Your task to perform on an android device: toggle sleep mode Image 0: 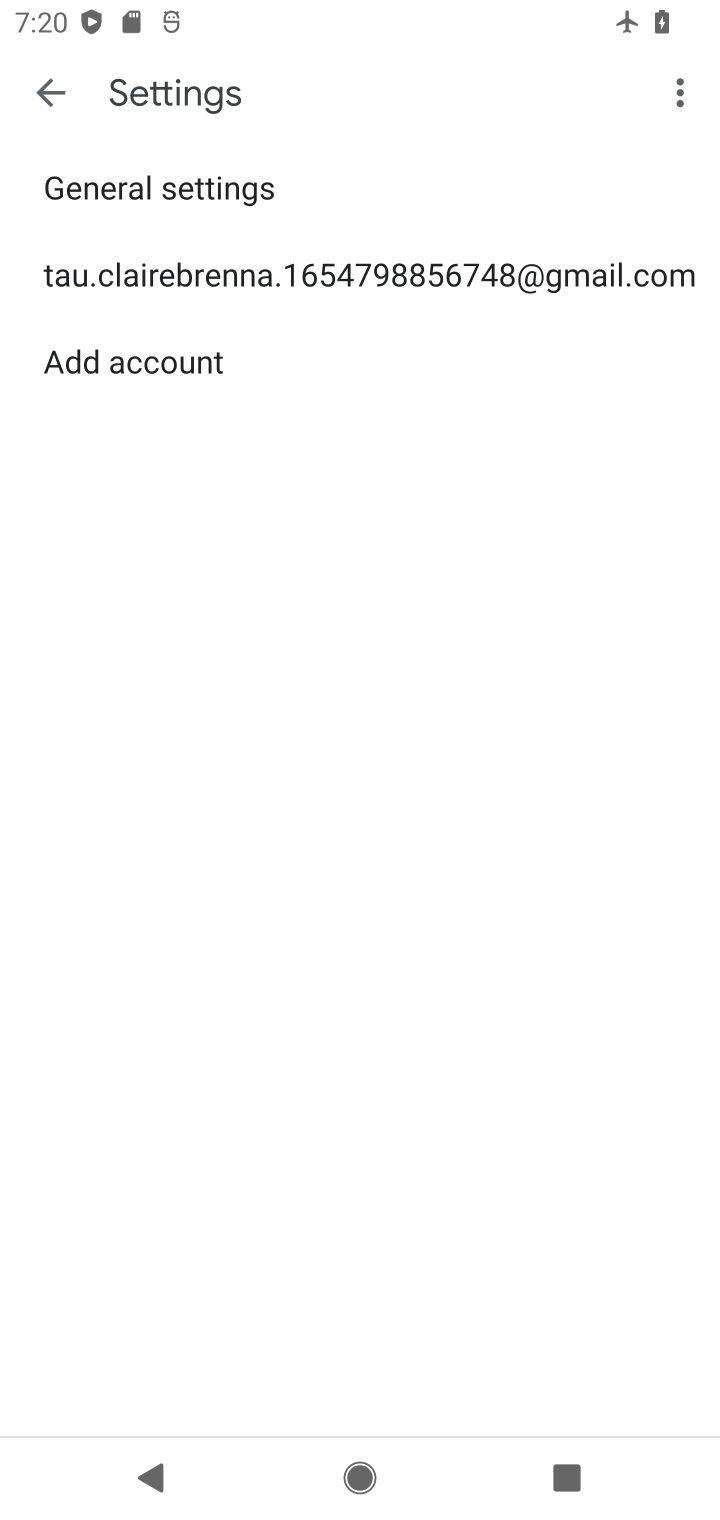
Step 0: press back button
Your task to perform on an android device: toggle sleep mode Image 1: 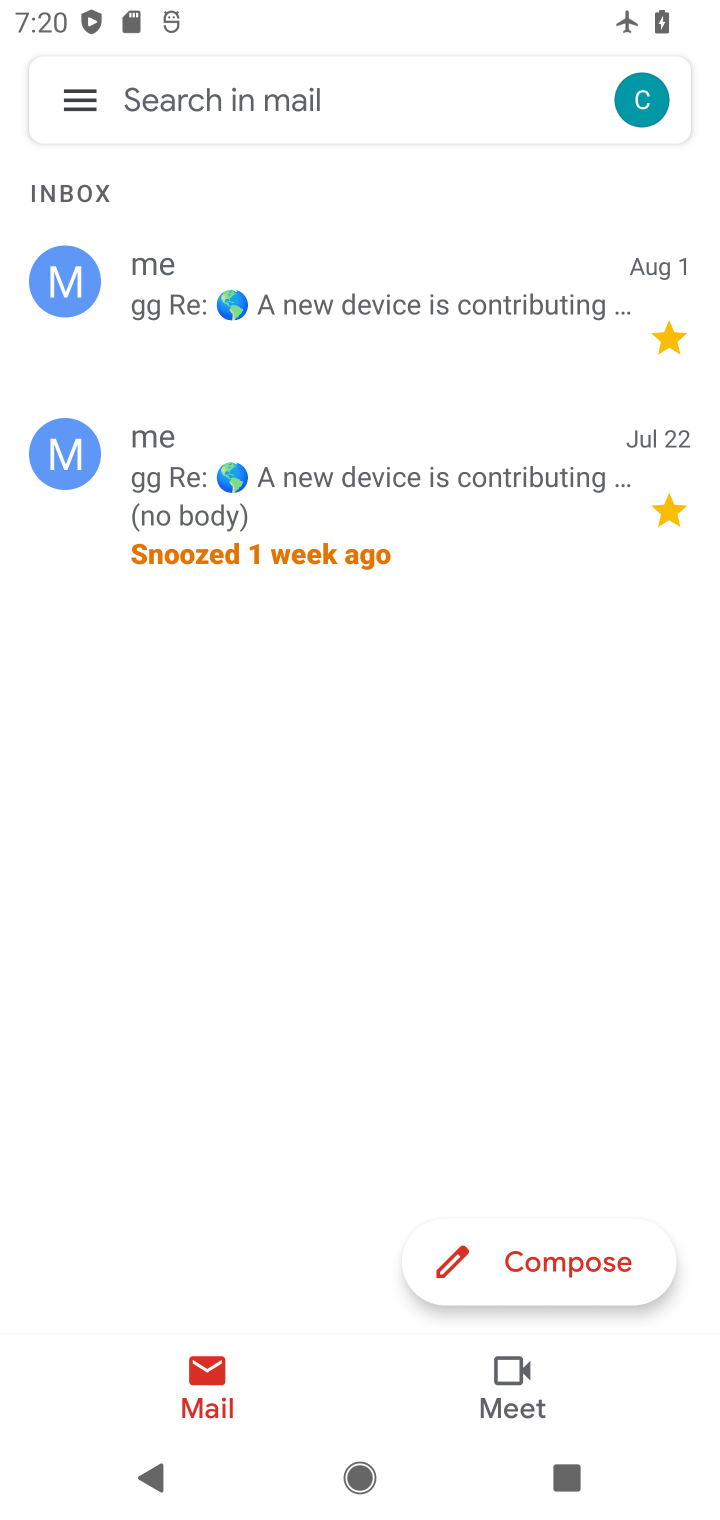
Step 1: press home button
Your task to perform on an android device: toggle sleep mode Image 2: 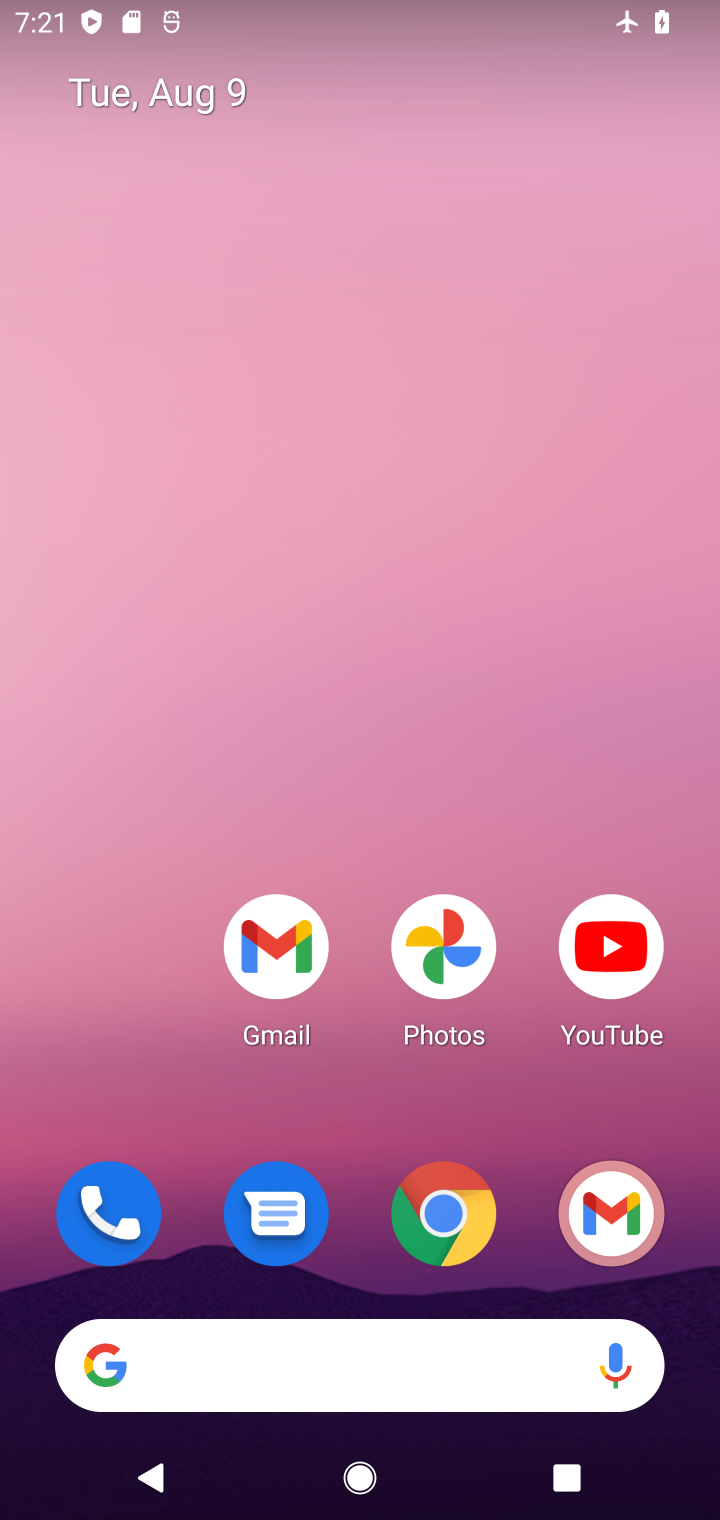
Step 2: drag from (360, 1279) to (217, 77)
Your task to perform on an android device: toggle sleep mode Image 3: 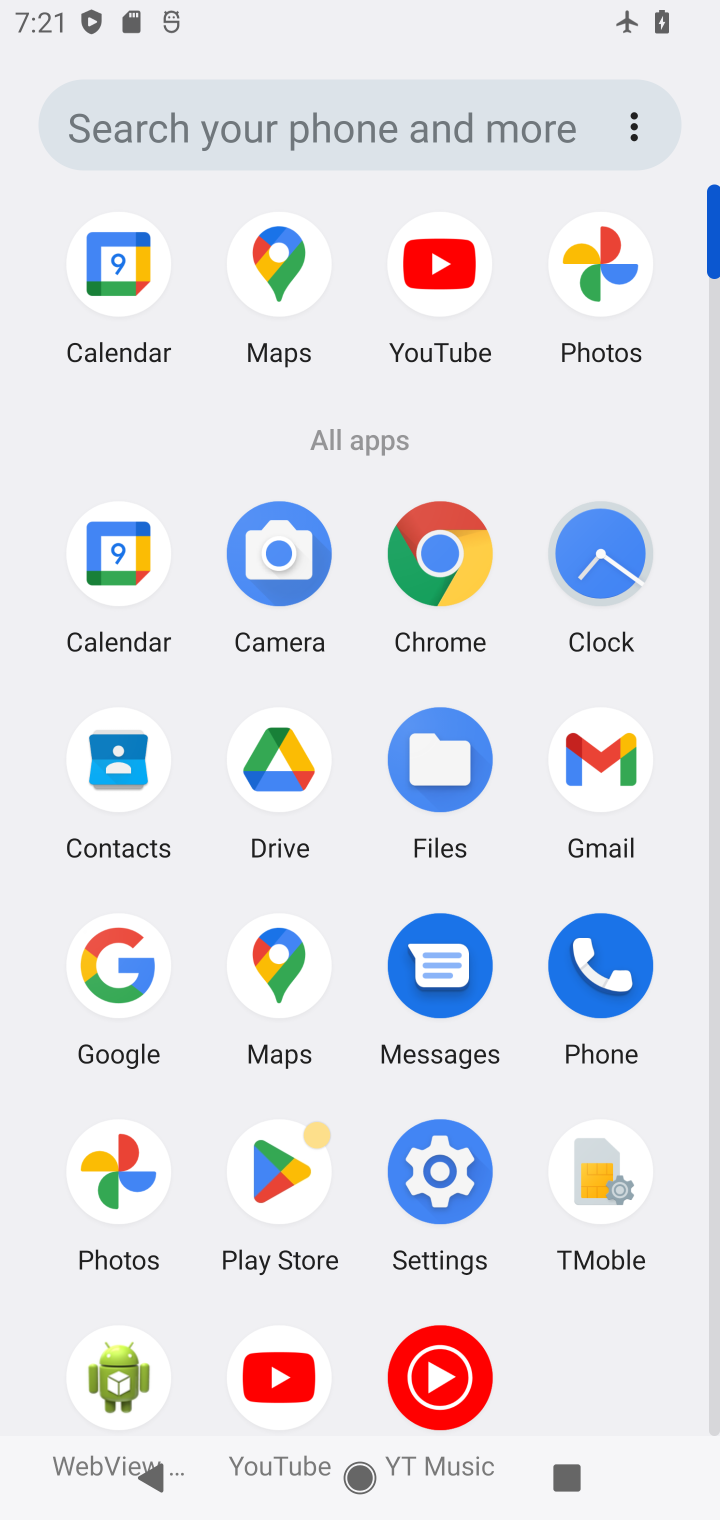
Step 3: click (456, 1207)
Your task to perform on an android device: toggle sleep mode Image 4: 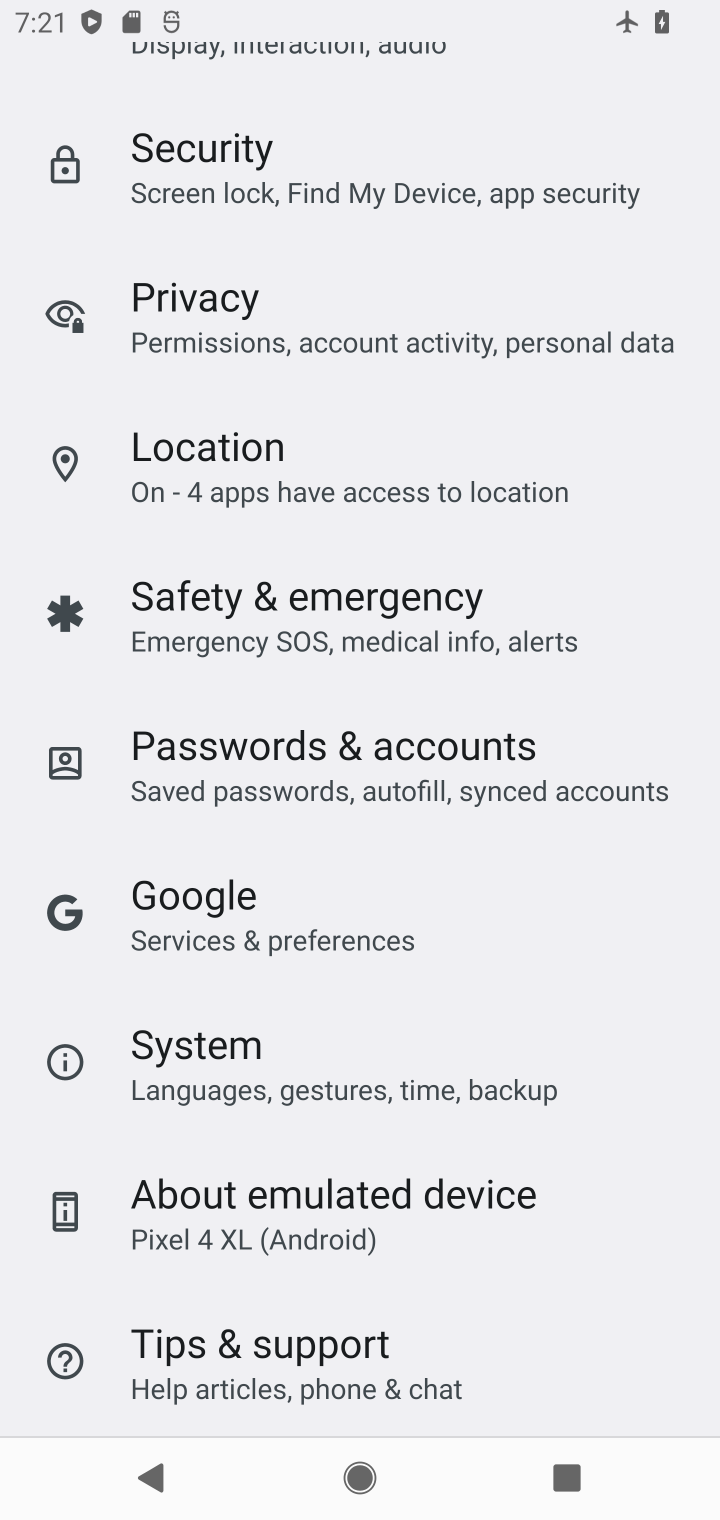
Step 4: drag from (303, 388) to (308, 1361)
Your task to perform on an android device: toggle sleep mode Image 5: 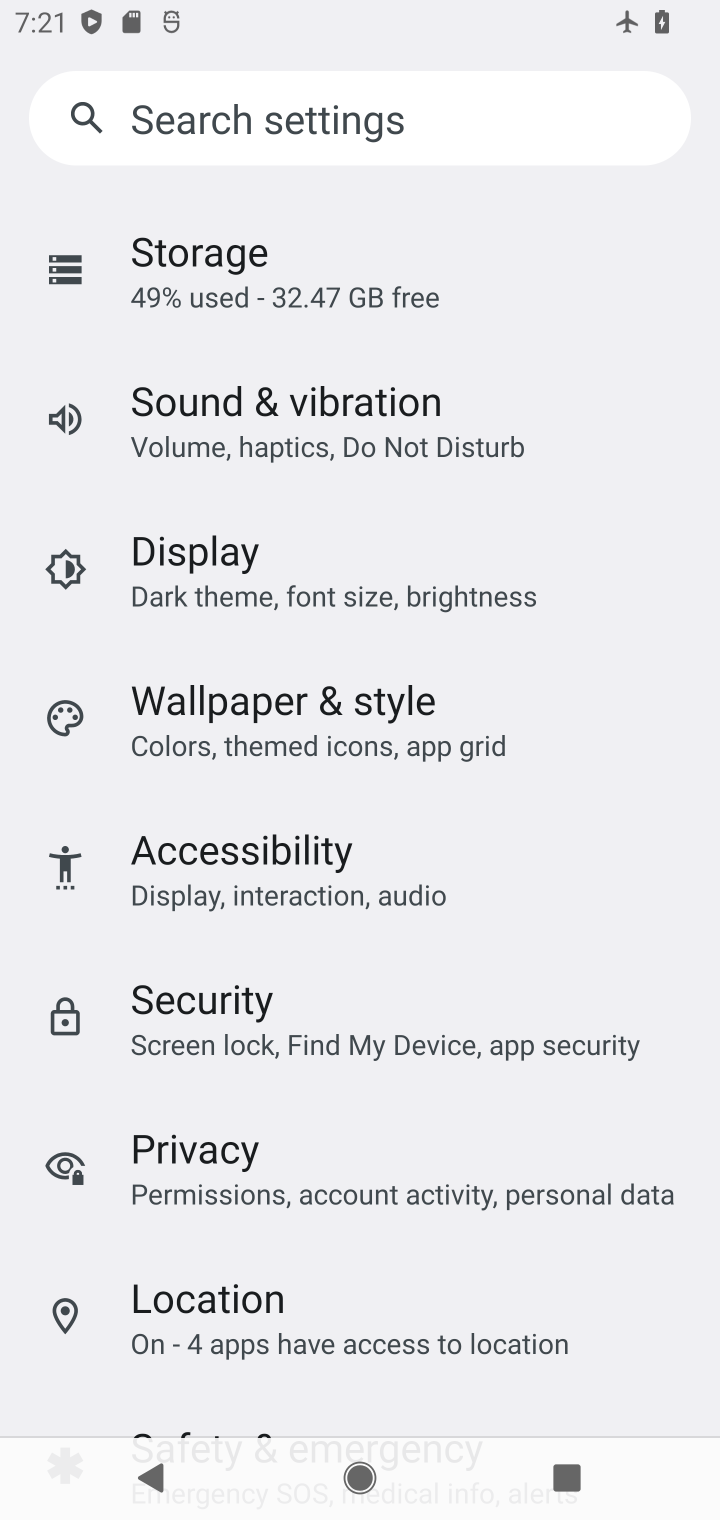
Step 5: click (292, 581)
Your task to perform on an android device: toggle sleep mode Image 6: 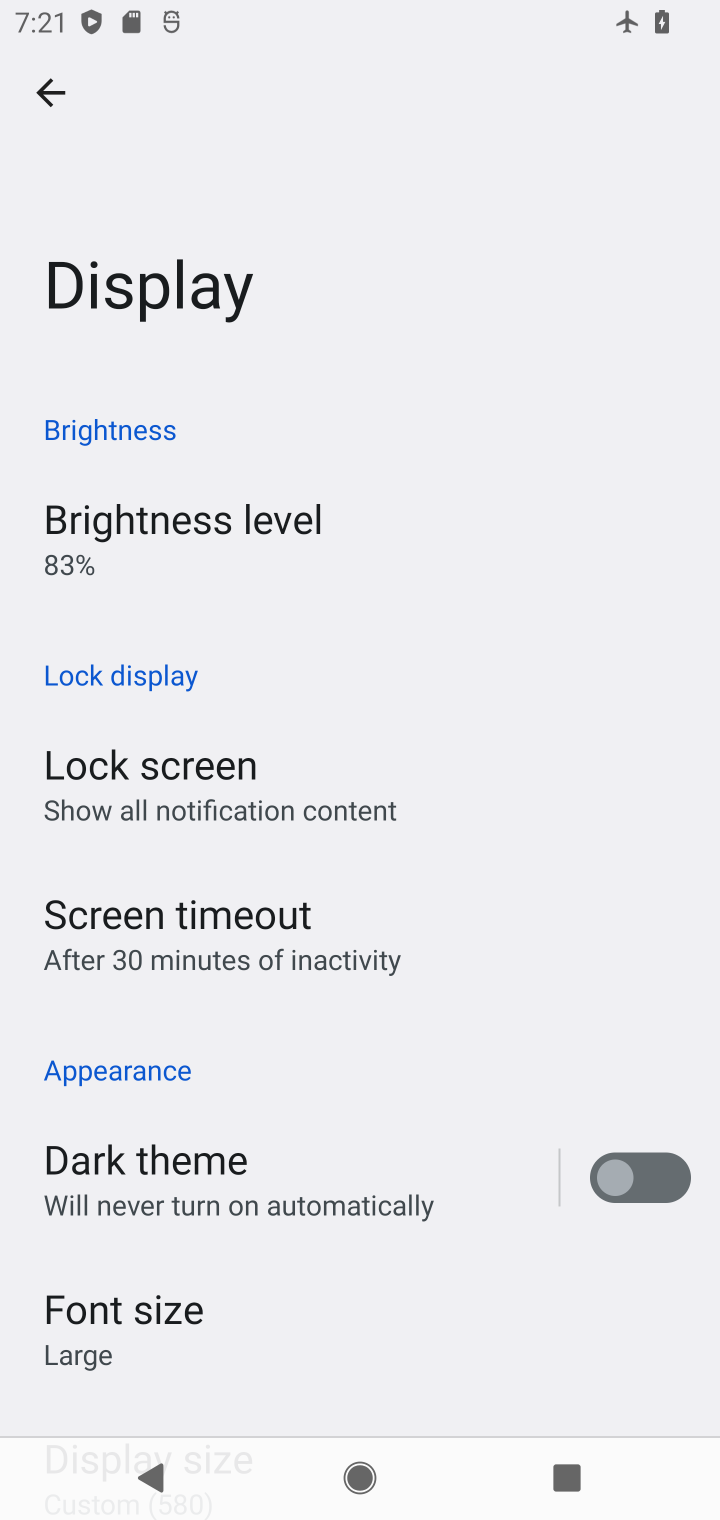
Step 6: drag from (276, 1118) to (458, 0)
Your task to perform on an android device: toggle sleep mode Image 7: 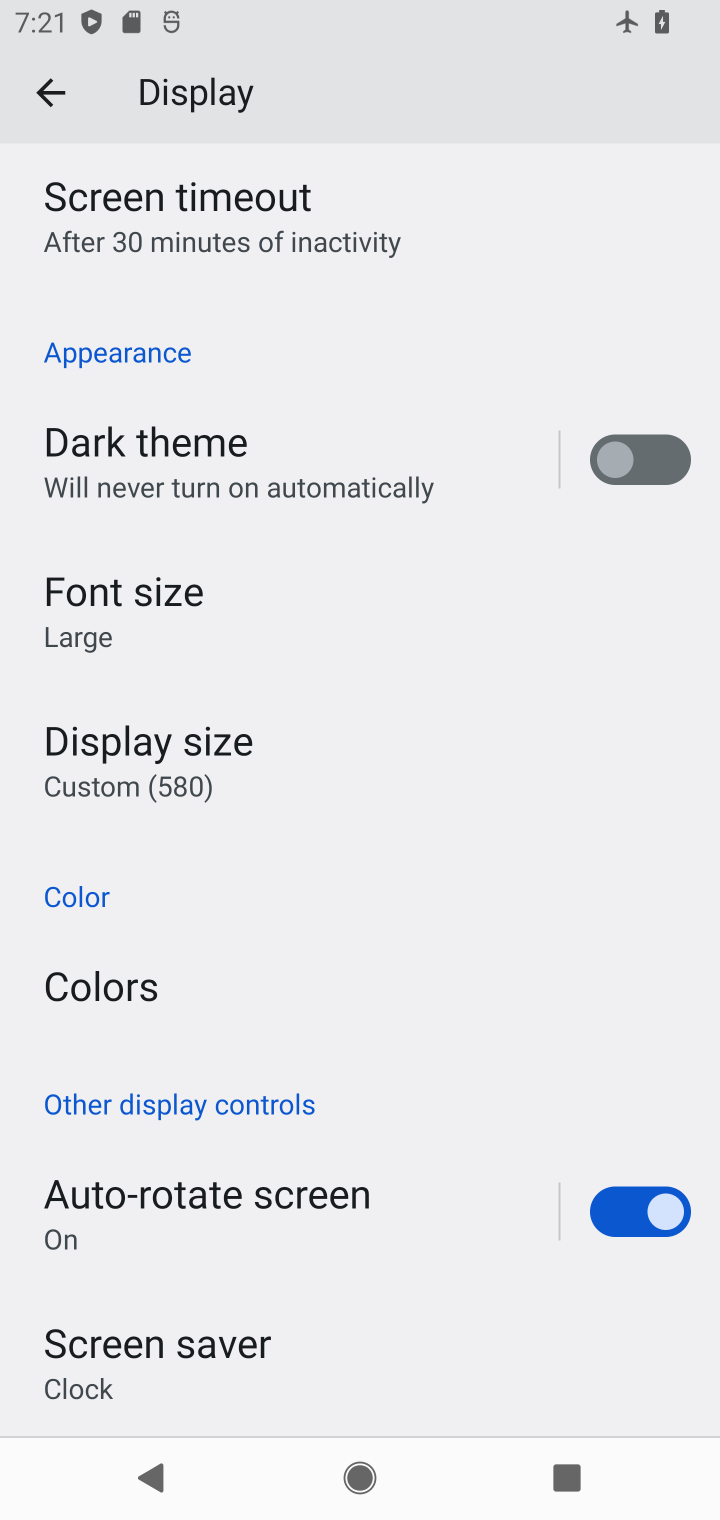
Step 7: click (199, 749)
Your task to perform on an android device: toggle sleep mode Image 8: 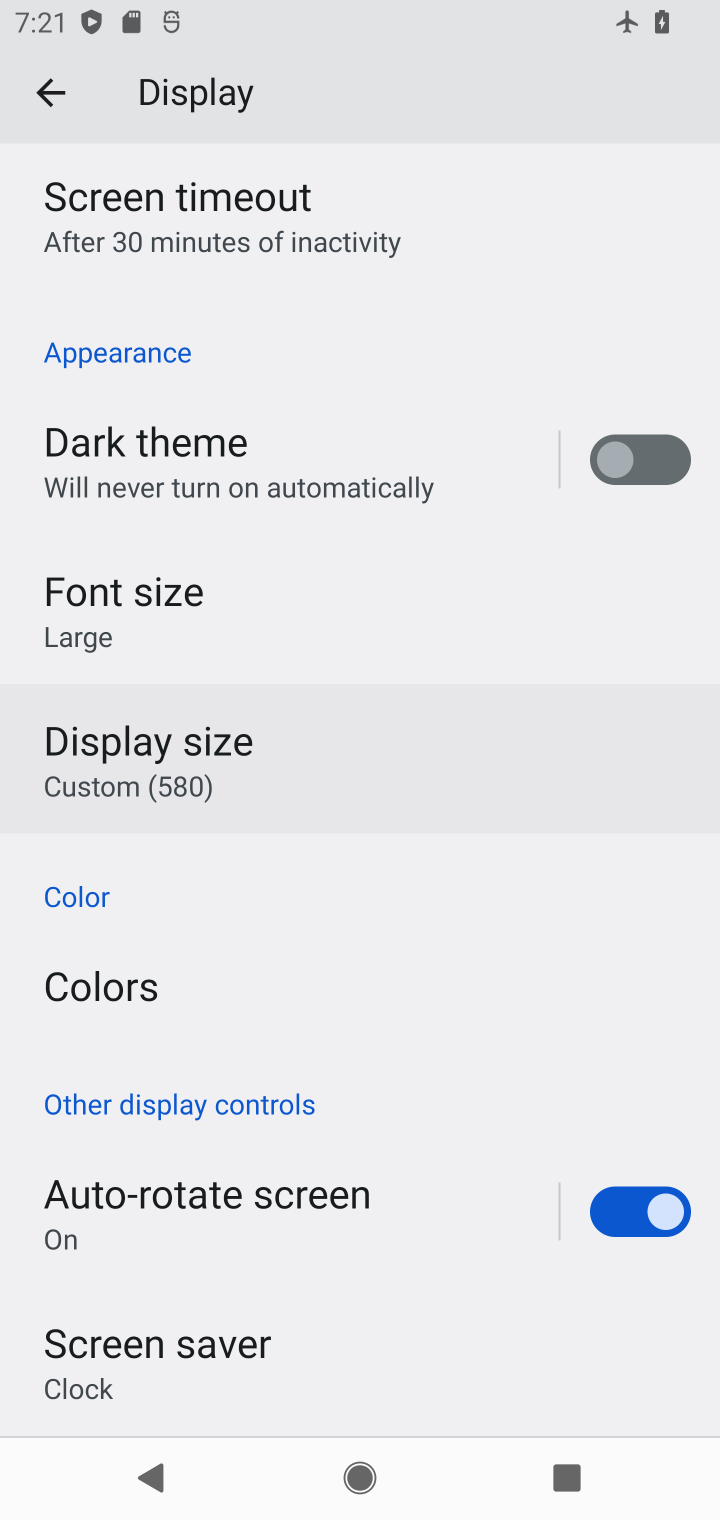
Step 8: task complete